Your task to perform on an android device: change notifications settings Image 0: 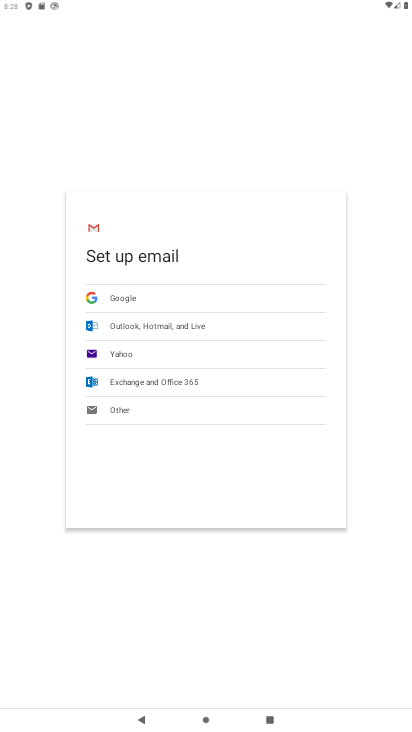
Step 0: press home button
Your task to perform on an android device: change notifications settings Image 1: 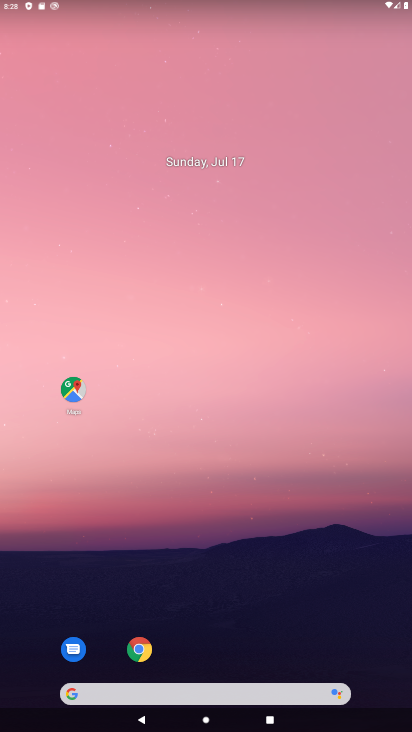
Step 1: drag from (207, 577) to (255, 131)
Your task to perform on an android device: change notifications settings Image 2: 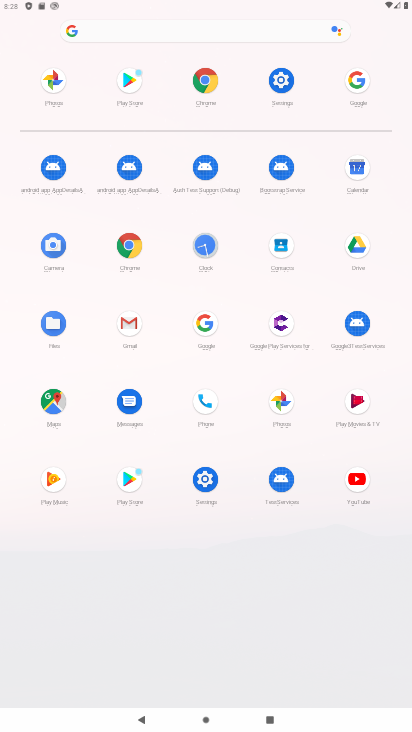
Step 2: click (208, 480)
Your task to perform on an android device: change notifications settings Image 3: 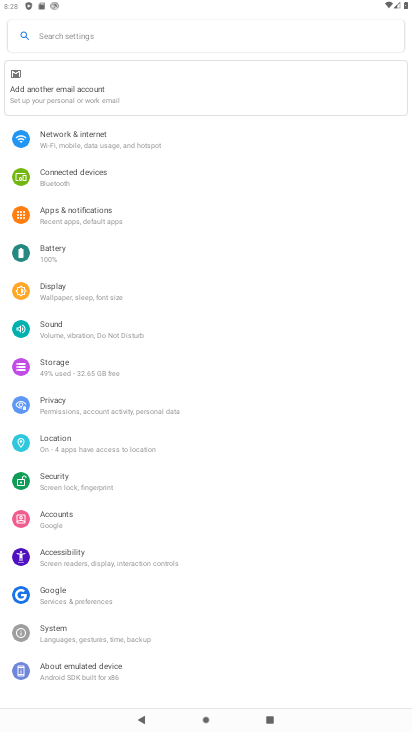
Step 3: click (84, 212)
Your task to perform on an android device: change notifications settings Image 4: 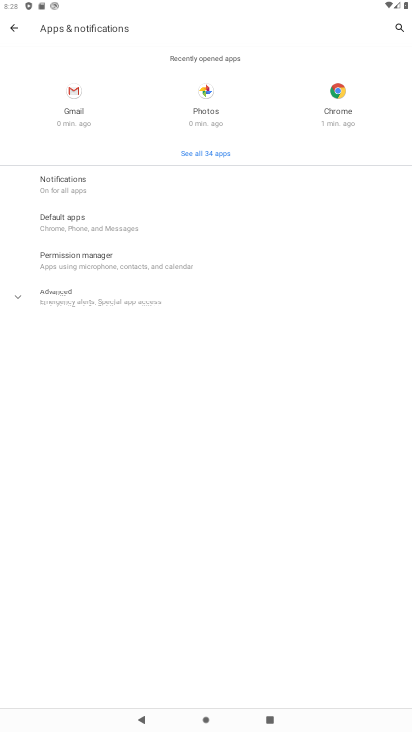
Step 4: click (79, 186)
Your task to perform on an android device: change notifications settings Image 5: 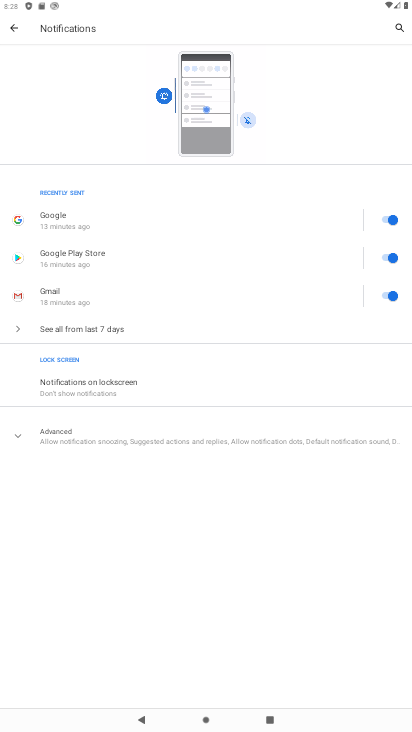
Step 5: click (45, 430)
Your task to perform on an android device: change notifications settings Image 6: 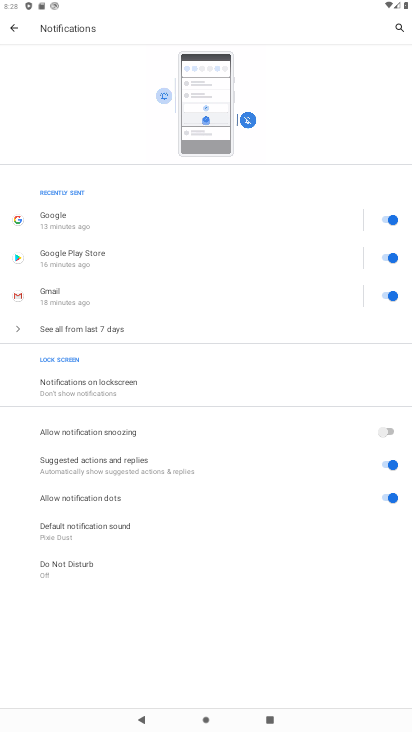
Step 6: click (392, 463)
Your task to perform on an android device: change notifications settings Image 7: 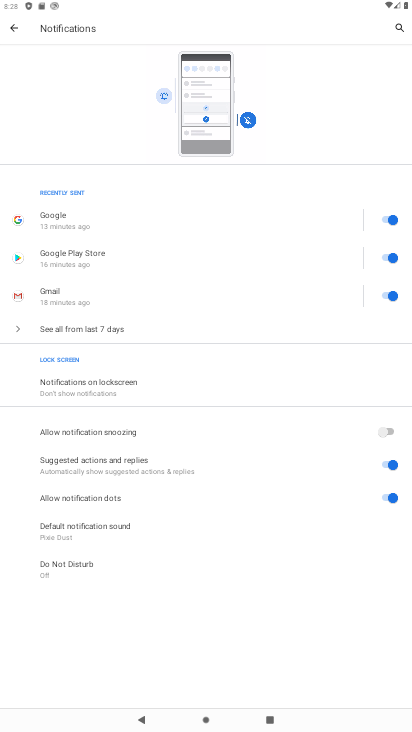
Step 7: click (391, 500)
Your task to perform on an android device: change notifications settings Image 8: 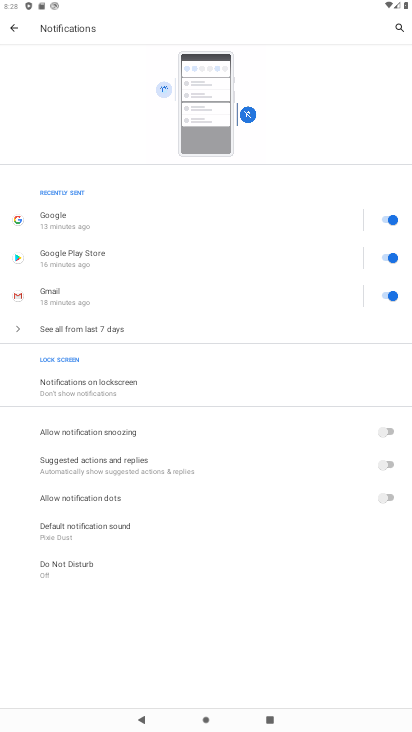
Step 8: task complete